Your task to perform on an android device: turn on translation in the chrome app Image 0: 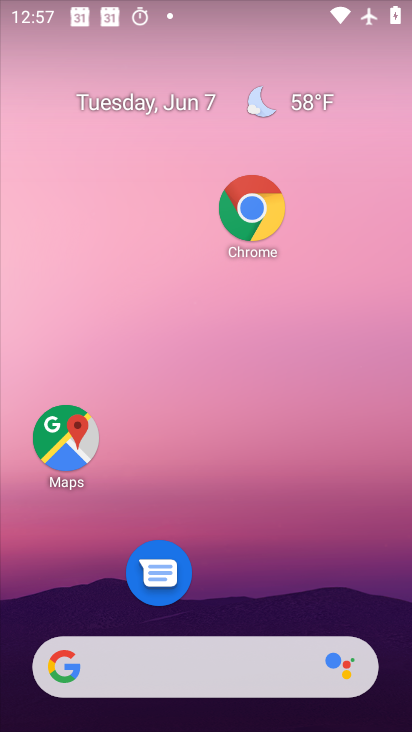
Step 0: click (256, 231)
Your task to perform on an android device: turn on translation in the chrome app Image 1: 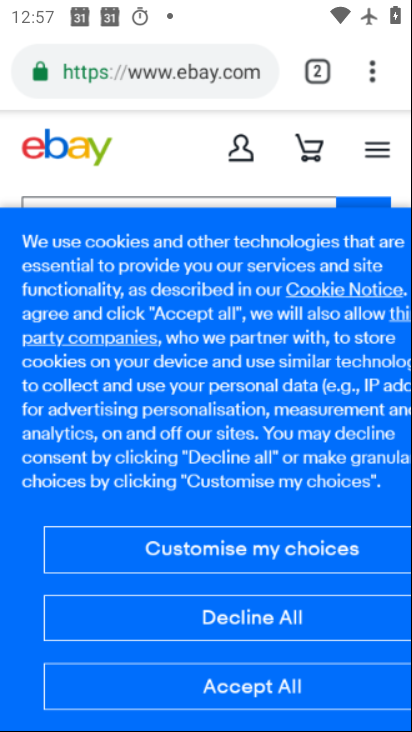
Step 1: click (381, 60)
Your task to perform on an android device: turn on translation in the chrome app Image 2: 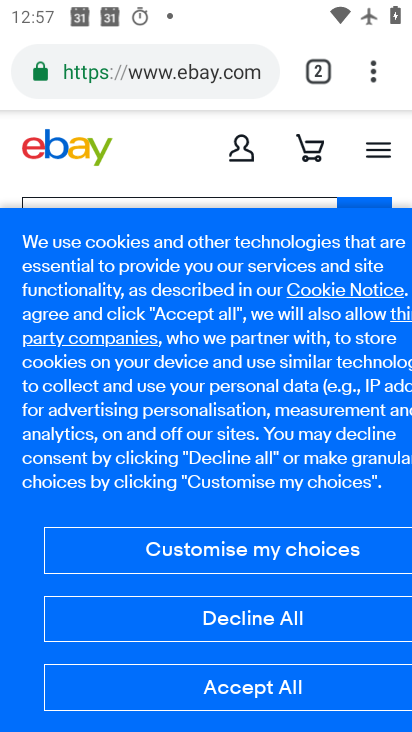
Step 2: click (377, 70)
Your task to perform on an android device: turn on translation in the chrome app Image 3: 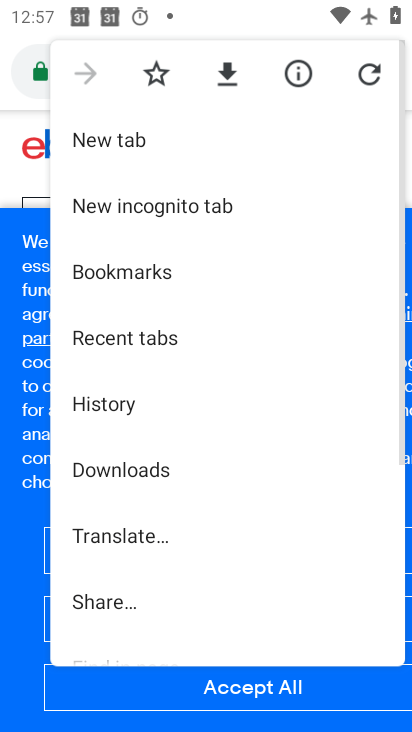
Step 3: drag from (237, 567) to (238, 311)
Your task to perform on an android device: turn on translation in the chrome app Image 4: 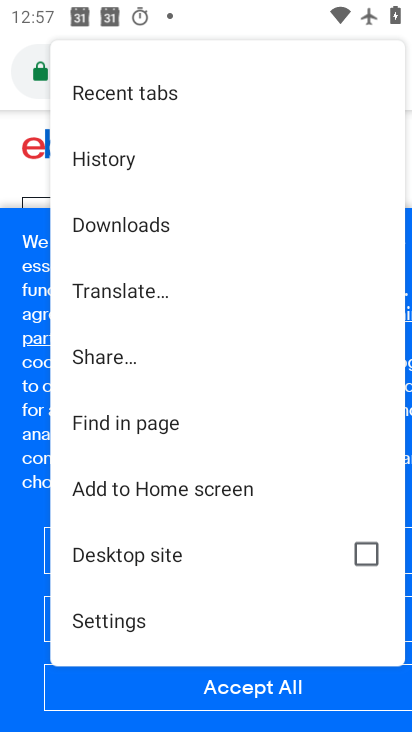
Step 4: click (161, 619)
Your task to perform on an android device: turn on translation in the chrome app Image 5: 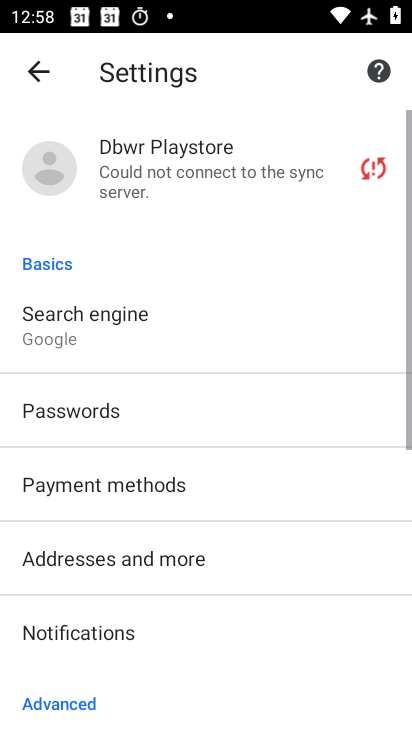
Step 5: drag from (161, 619) to (216, 305)
Your task to perform on an android device: turn on translation in the chrome app Image 6: 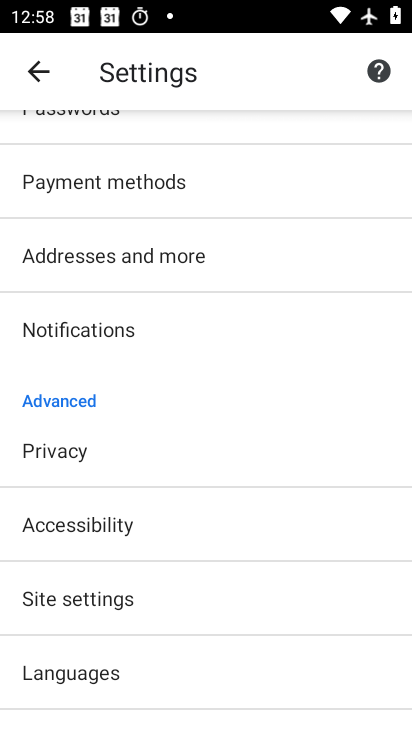
Step 6: click (157, 660)
Your task to perform on an android device: turn on translation in the chrome app Image 7: 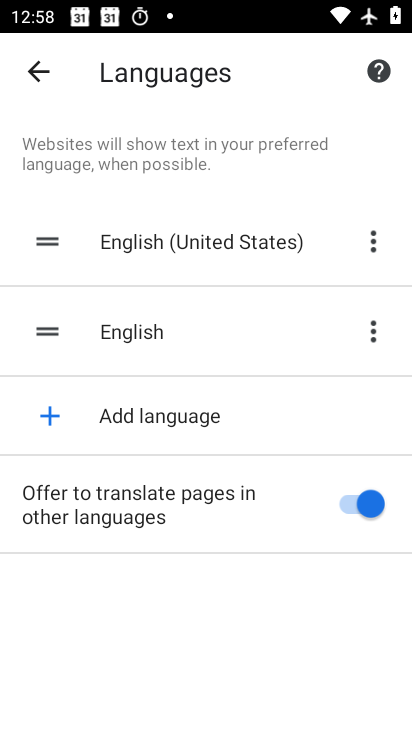
Step 7: click (343, 506)
Your task to perform on an android device: turn on translation in the chrome app Image 8: 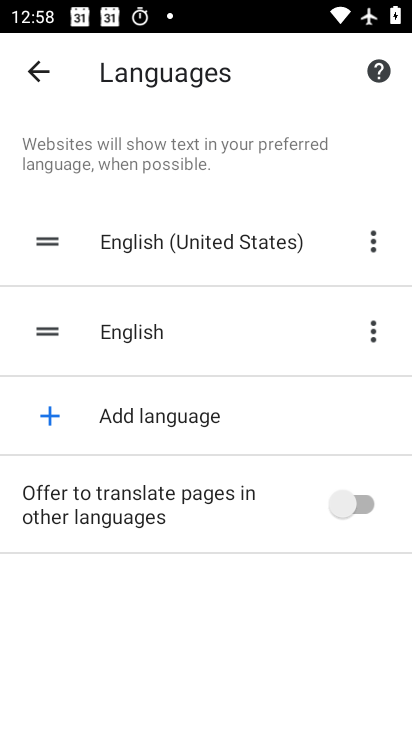
Step 8: click (363, 497)
Your task to perform on an android device: turn on translation in the chrome app Image 9: 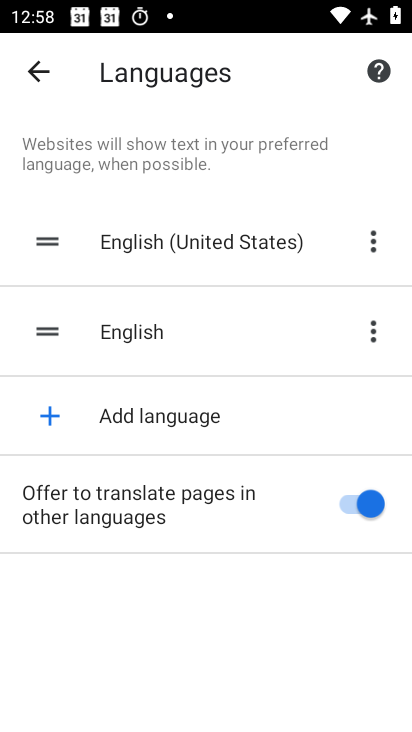
Step 9: task complete